Your task to perform on an android device: Open the calendar and show me this week's events? Image 0: 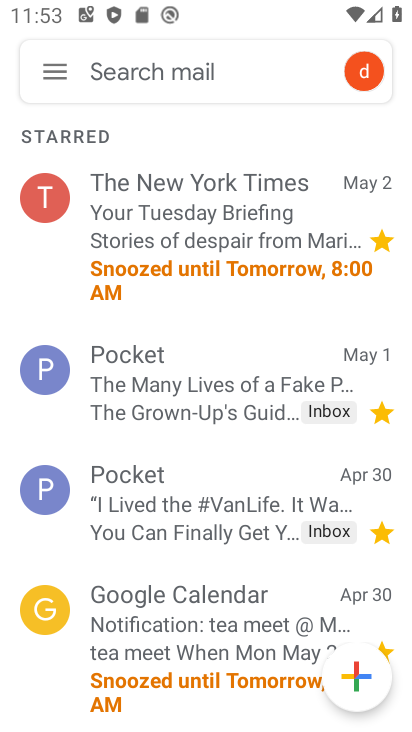
Step 0: press back button
Your task to perform on an android device: Open the calendar and show me this week's events? Image 1: 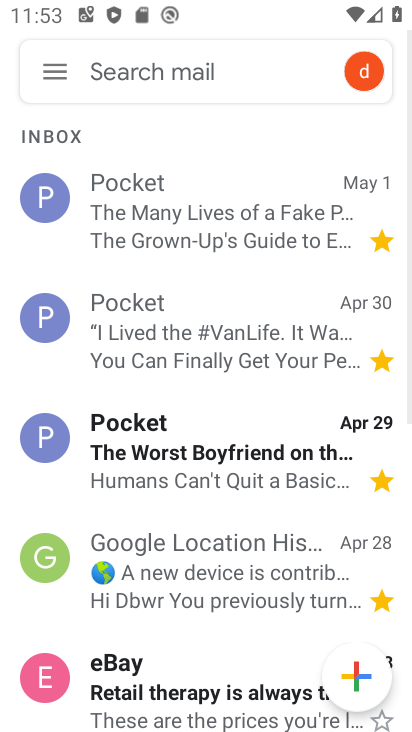
Step 1: press back button
Your task to perform on an android device: Open the calendar and show me this week's events? Image 2: 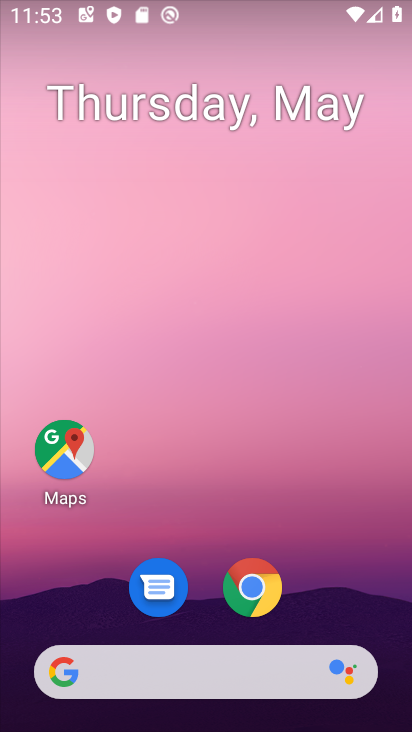
Step 2: drag from (191, 555) to (207, 77)
Your task to perform on an android device: Open the calendar and show me this week's events? Image 3: 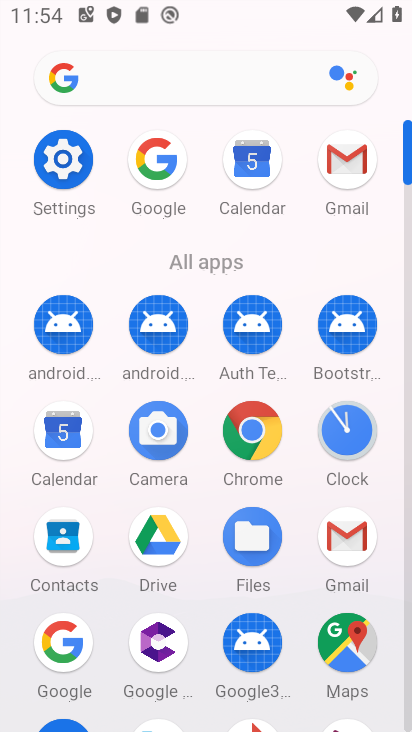
Step 3: click (55, 433)
Your task to perform on an android device: Open the calendar and show me this week's events? Image 4: 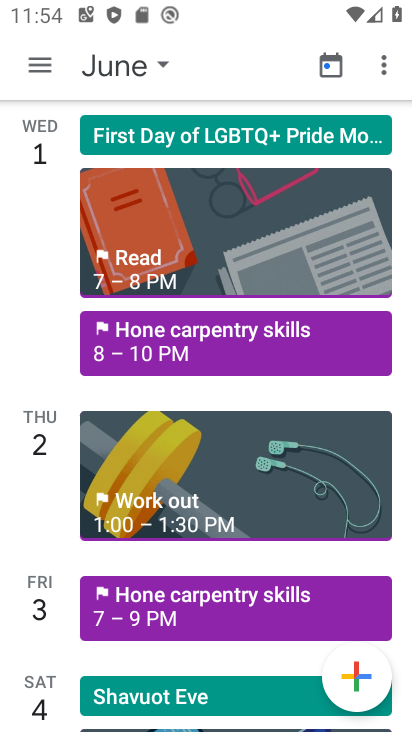
Step 4: click (151, 60)
Your task to perform on an android device: Open the calendar and show me this week's events? Image 5: 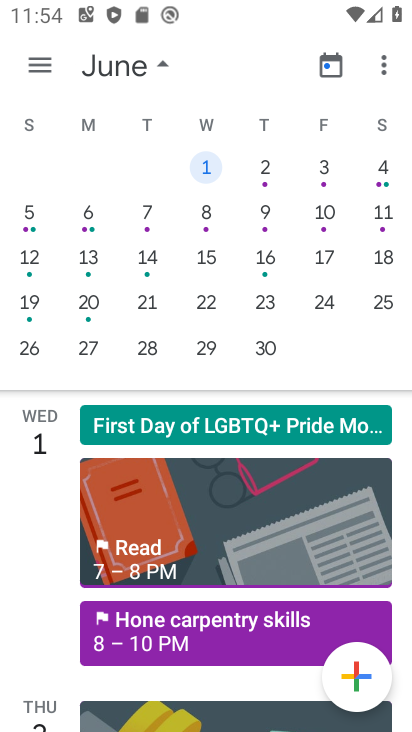
Step 5: drag from (73, 253) to (358, 232)
Your task to perform on an android device: Open the calendar and show me this week's events? Image 6: 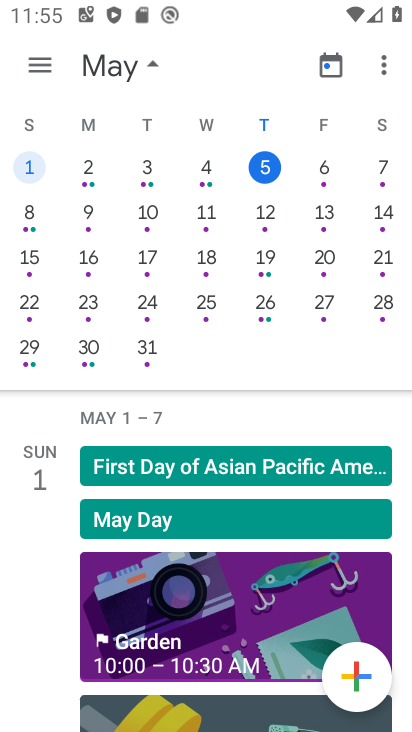
Step 6: drag from (228, 591) to (244, 731)
Your task to perform on an android device: Open the calendar and show me this week's events? Image 7: 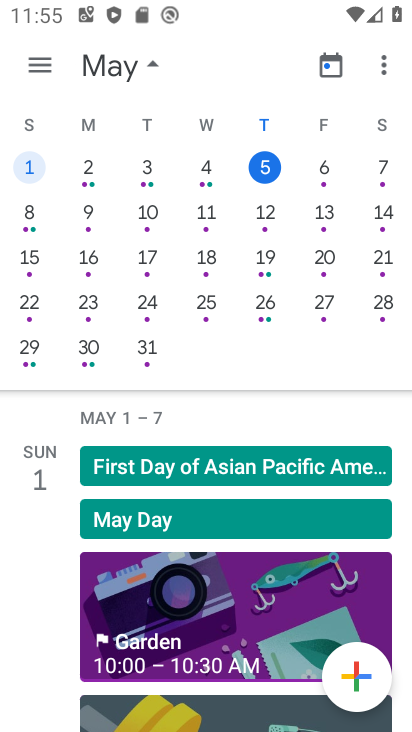
Step 7: click (256, 163)
Your task to perform on an android device: Open the calendar and show me this week's events? Image 8: 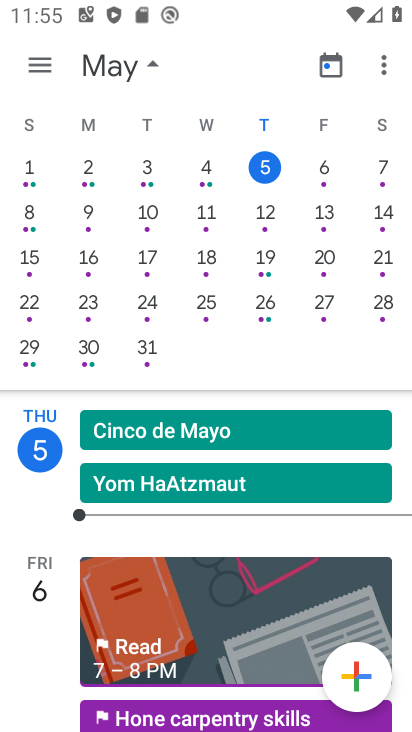
Step 8: drag from (208, 580) to (287, 262)
Your task to perform on an android device: Open the calendar and show me this week's events? Image 9: 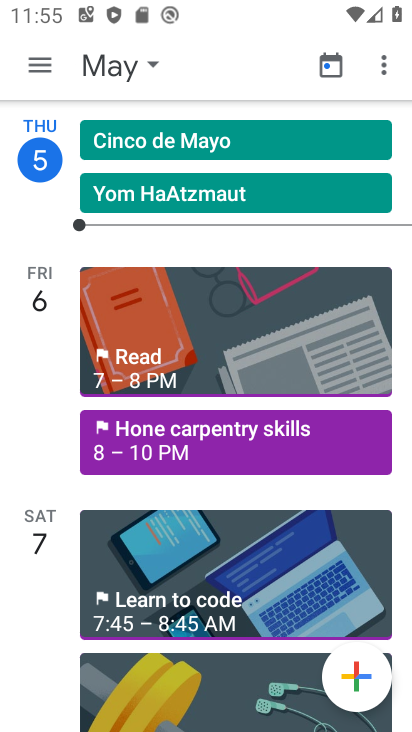
Step 9: drag from (222, 614) to (257, 210)
Your task to perform on an android device: Open the calendar and show me this week's events? Image 10: 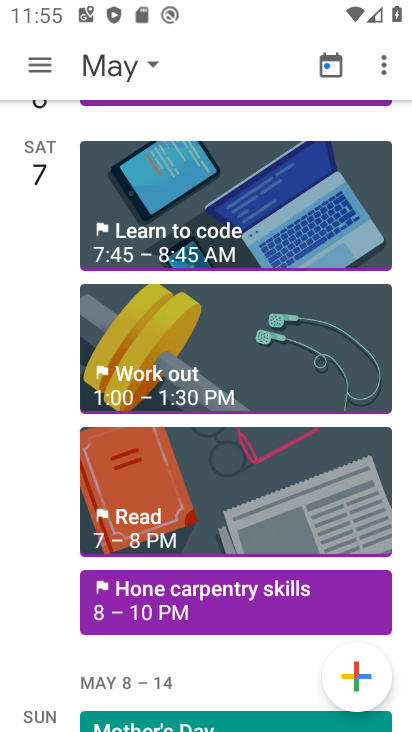
Step 10: click (147, 599)
Your task to perform on an android device: Open the calendar and show me this week's events? Image 11: 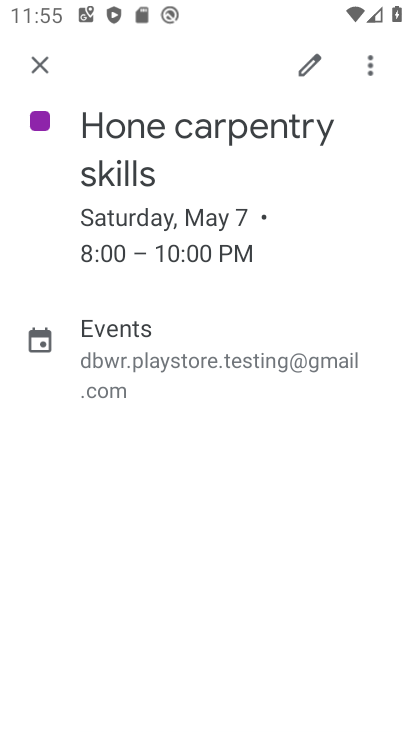
Step 11: task complete